Your task to perform on an android device: make emails show in primary in the gmail app Image 0: 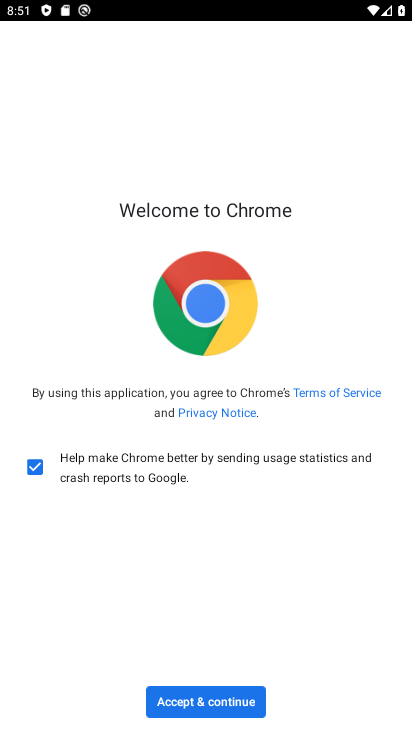
Step 0: press home button
Your task to perform on an android device: make emails show in primary in the gmail app Image 1: 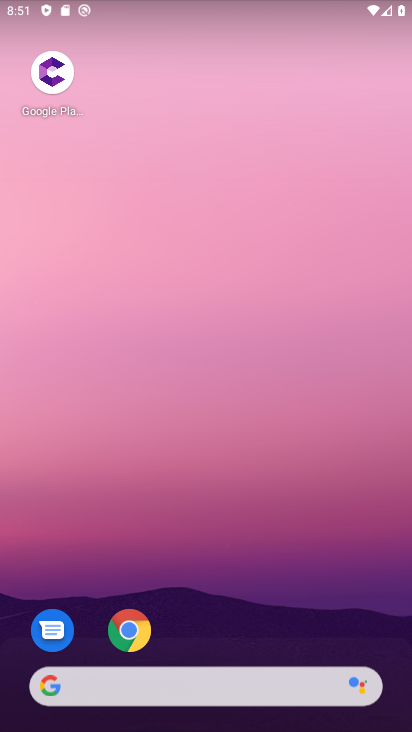
Step 1: drag from (226, 603) to (226, 12)
Your task to perform on an android device: make emails show in primary in the gmail app Image 2: 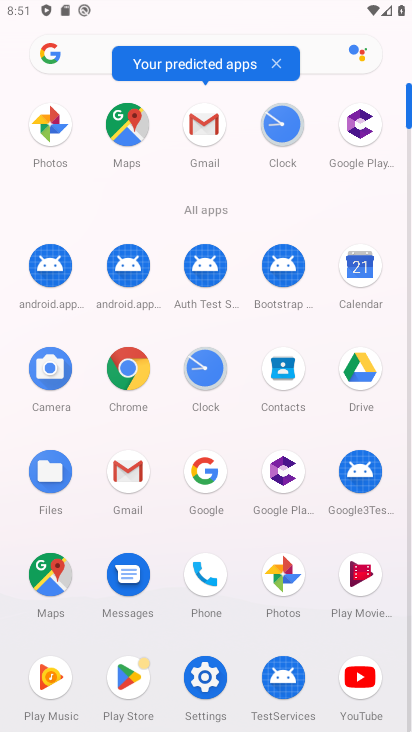
Step 2: click (208, 131)
Your task to perform on an android device: make emails show in primary in the gmail app Image 3: 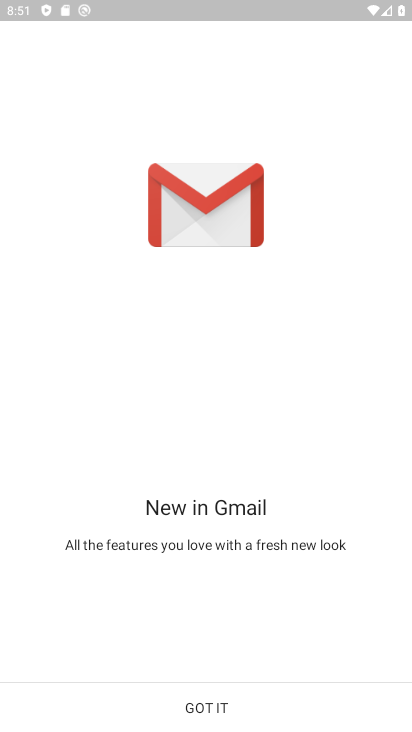
Step 3: click (236, 692)
Your task to perform on an android device: make emails show in primary in the gmail app Image 4: 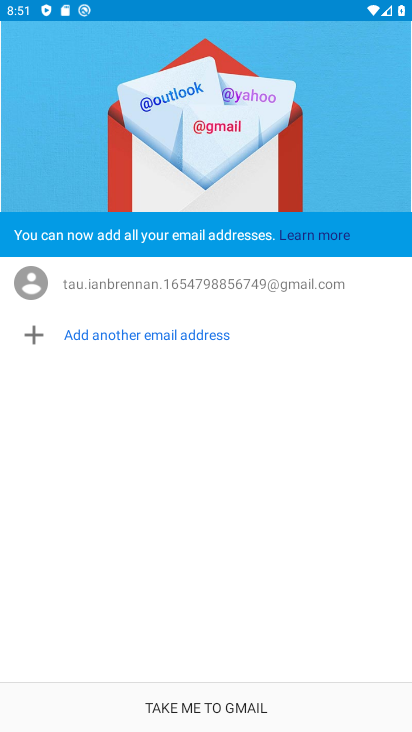
Step 4: click (236, 692)
Your task to perform on an android device: make emails show in primary in the gmail app Image 5: 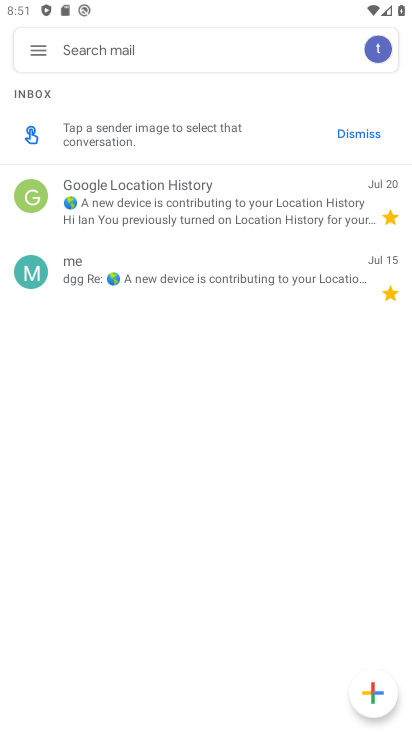
Step 5: click (34, 53)
Your task to perform on an android device: make emails show in primary in the gmail app Image 6: 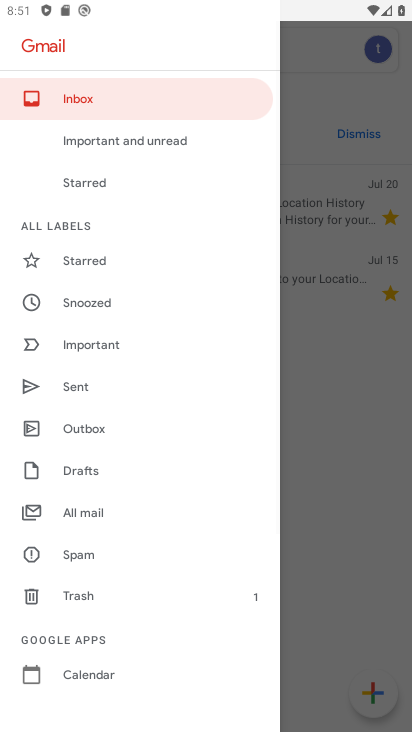
Step 6: drag from (159, 613) to (158, 300)
Your task to perform on an android device: make emails show in primary in the gmail app Image 7: 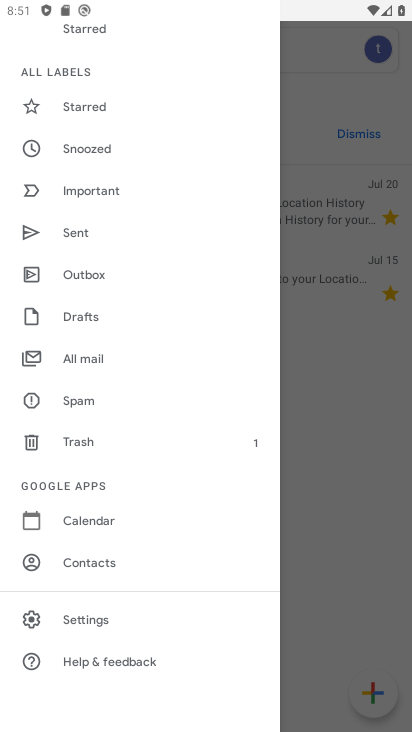
Step 7: click (139, 611)
Your task to perform on an android device: make emails show in primary in the gmail app Image 8: 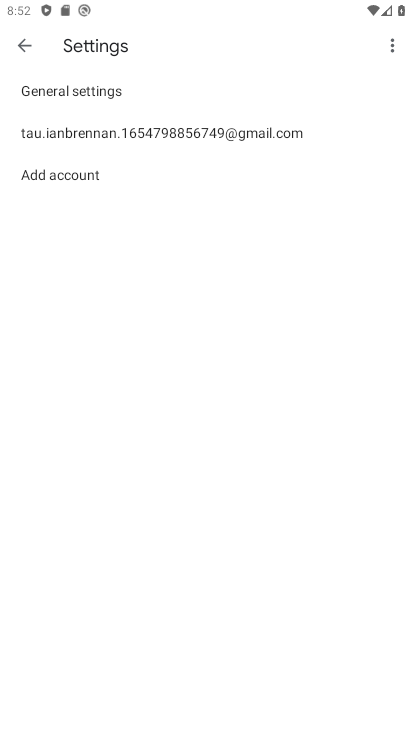
Step 8: click (326, 145)
Your task to perform on an android device: make emails show in primary in the gmail app Image 9: 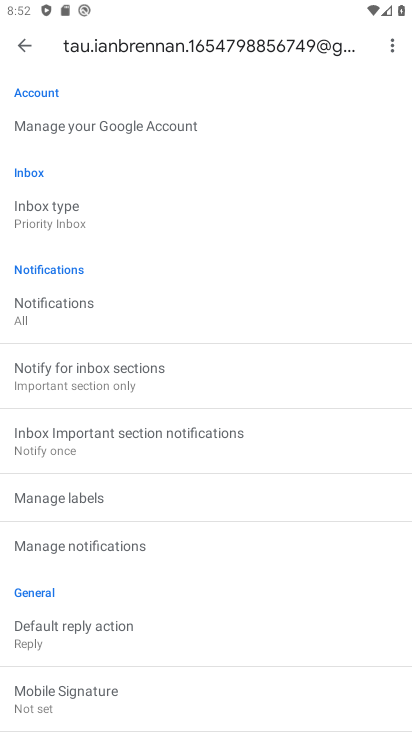
Step 9: click (129, 224)
Your task to perform on an android device: make emails show in primary in the gmail app Image 10: 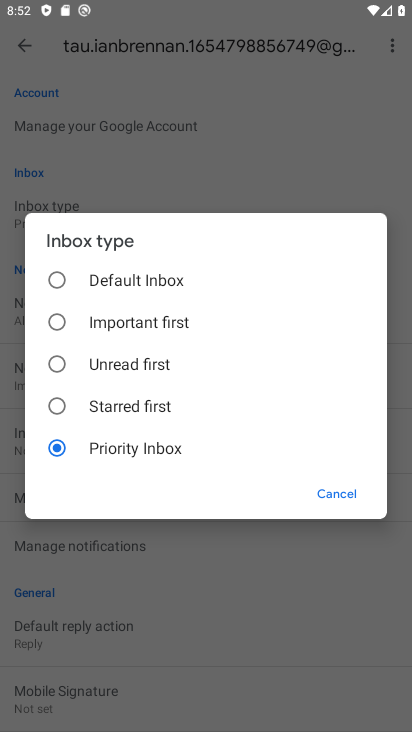
Step 10: click (158, 274)
Your task to perform on an android device: make emails show in primary in the gmail app Image 11: 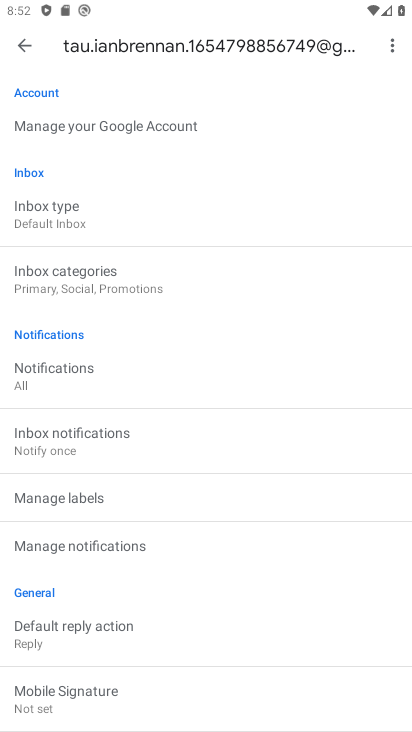
Step 11: task complete